Your task to perform on an android device: Go to Amazon Image 0: 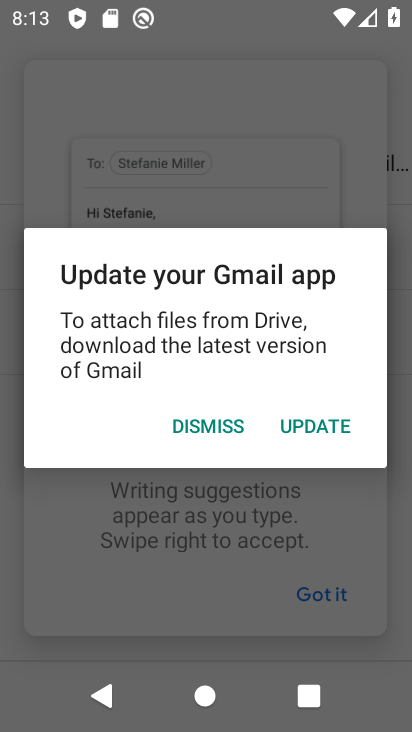
Step 0: press home button
Your task to perform on an android device: Go to Amazon Image 1: 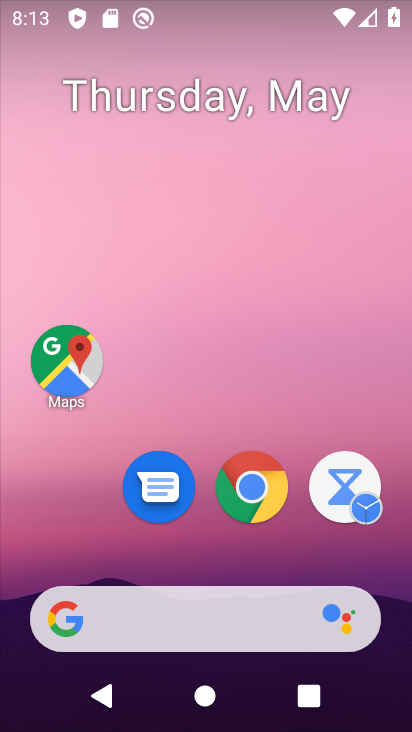
Step 1: drag from (394, 575) to (355, 241)
Your task to perform on an android device: Go to Amazon Image 2: 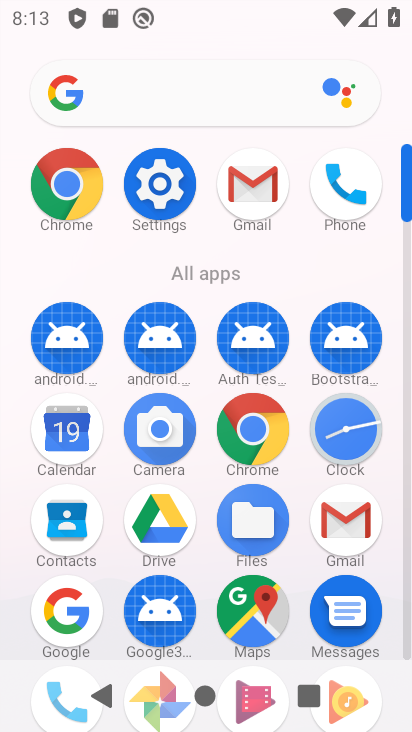
Step 2: click (268, 438)
Your task to perform on an android device: Go to Amazon Image 3: 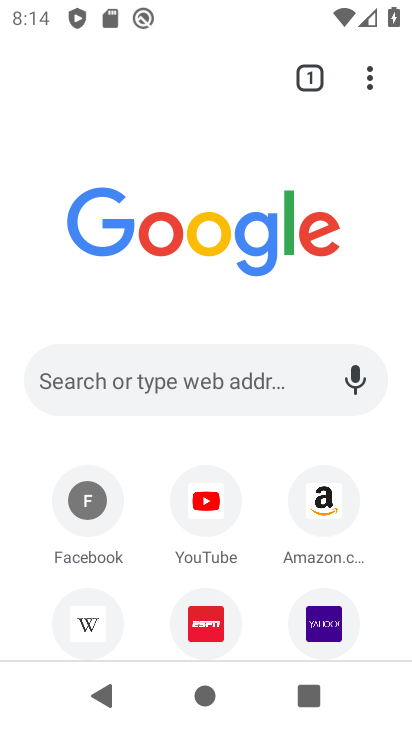
Step 3: drag from (255, 584) to (260, 437)
Your task to perform on an android device: Go to Amazon Image 4: 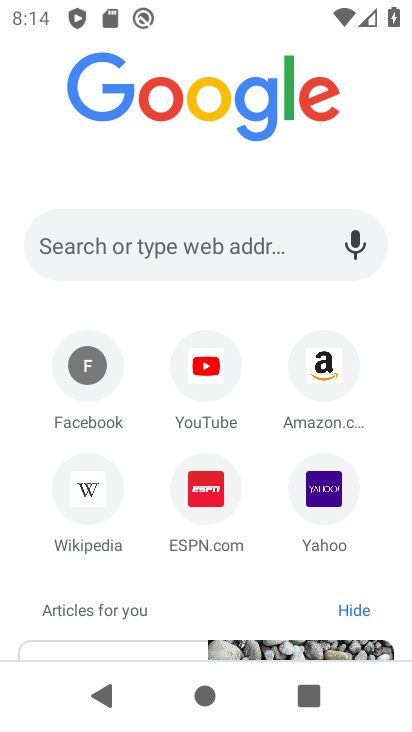
Step 4: drag from (266, 570) to (263, 447)
Your task to perform on an android device: Go to Amazon Image 5: 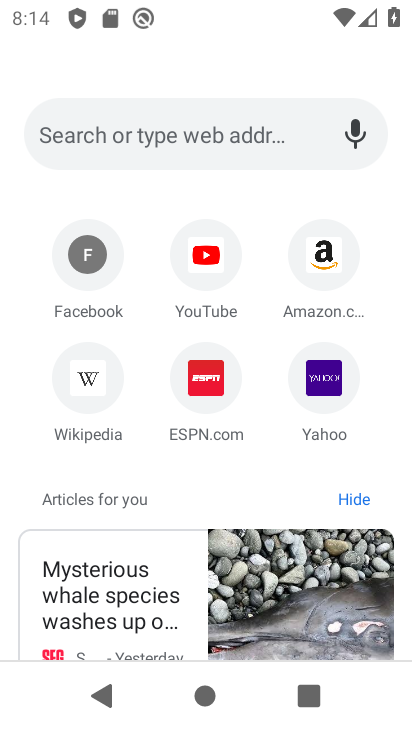
Step 5: drag from (258, 492) to (257, 347)
Your task to perform on an android device: Go to Amazon Image 6: 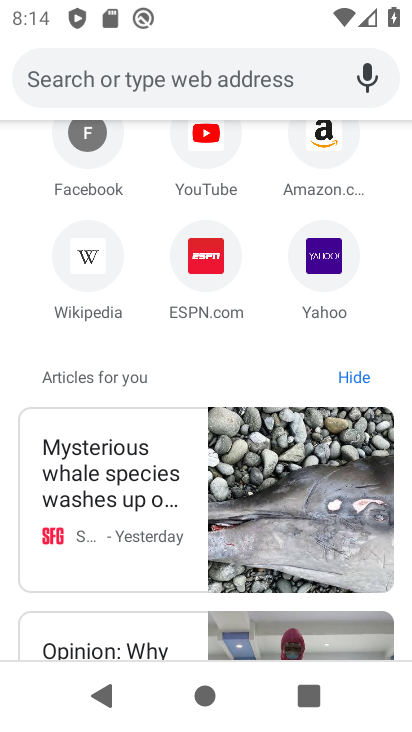
Step 6: drag from (18, 294) to (4, 416)
Your task to perform on an android device: Go to Amazon Image 7: 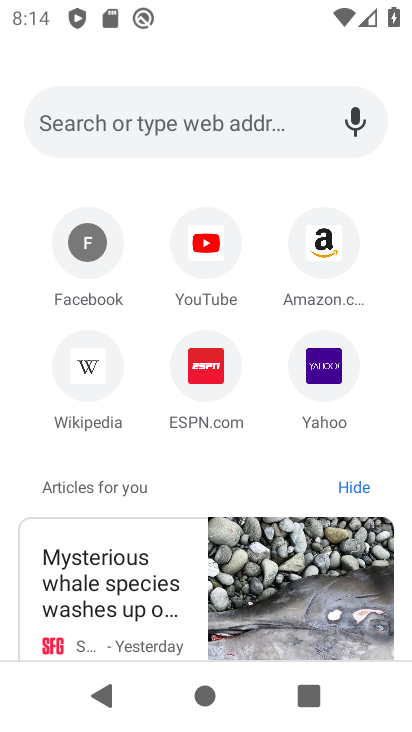
Step 7: click (316, 253)
Your task to perform on an android device: Go to Amazon Image 8: 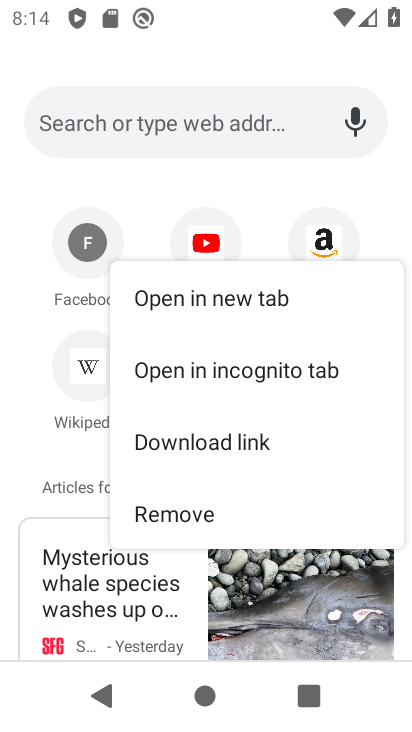
Step 8: click (325, 227)
Your task to perform on an android device: Go to Amazon Image 9: 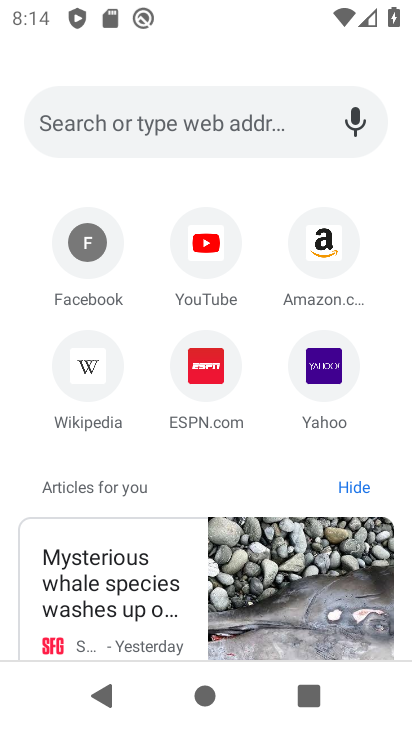
Step 9: click (332, 258)
Your task to perform on an android device: Go to Amazon Image 10: 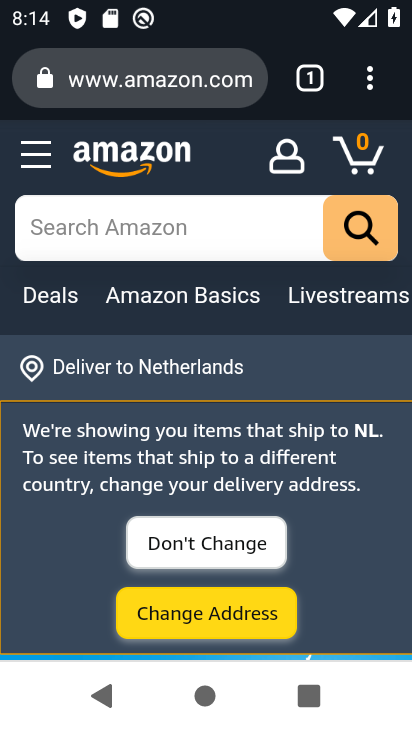
Step 10: task complete